Your task to perform on an android device: turn on translation in the chrome app Image 0: 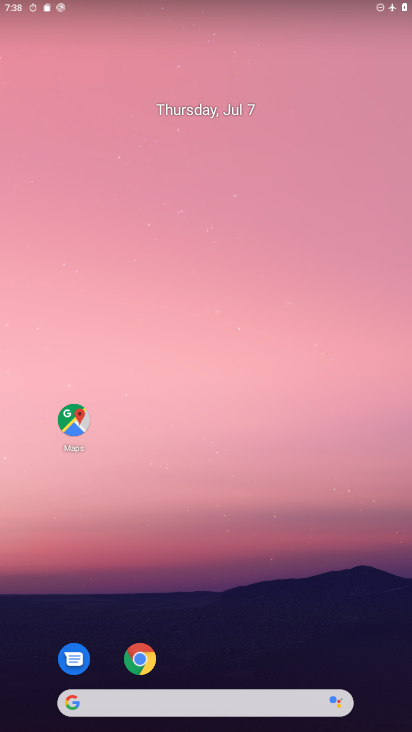
Step 0: drag from (361, 679) to (386, 538)
Your task to perform on an android device: turn on translation in the chrome app Image 1: 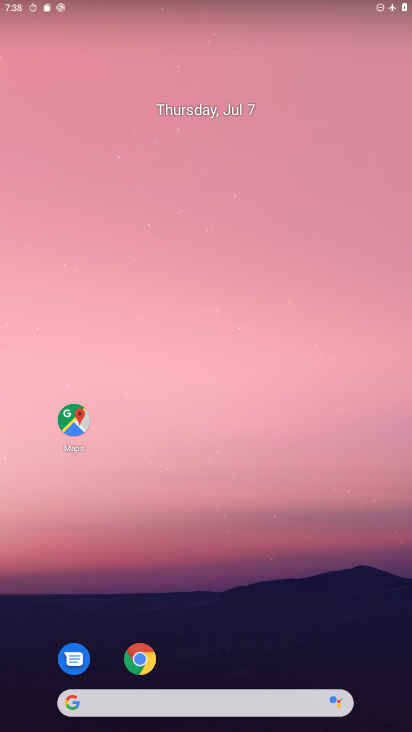
Step 1: drag from (352, 715) to (240, 0)
Your task to perform on an android device: turn on translation in the chrome app Image 2: 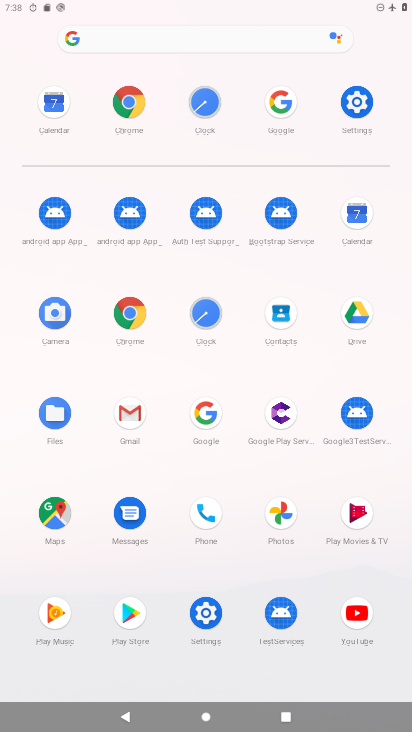
Step 2: click (117, 313)
Your task to perform on an android device: turn on translation in the chrome app Image 3: 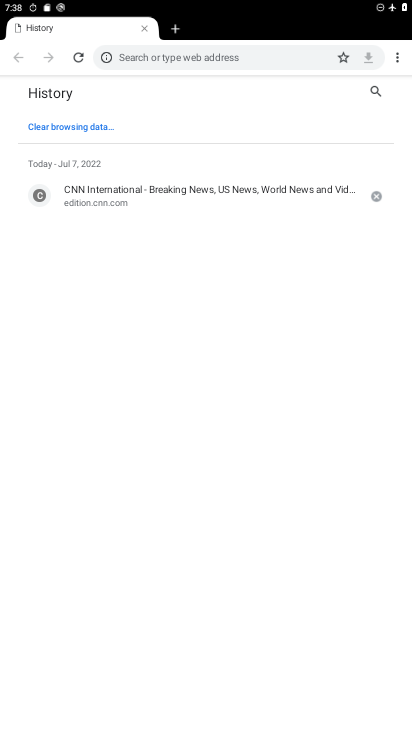
Step 3: click (390, 54)
Your task to perform on an android device: turn on translation in the chrome app Image 4: 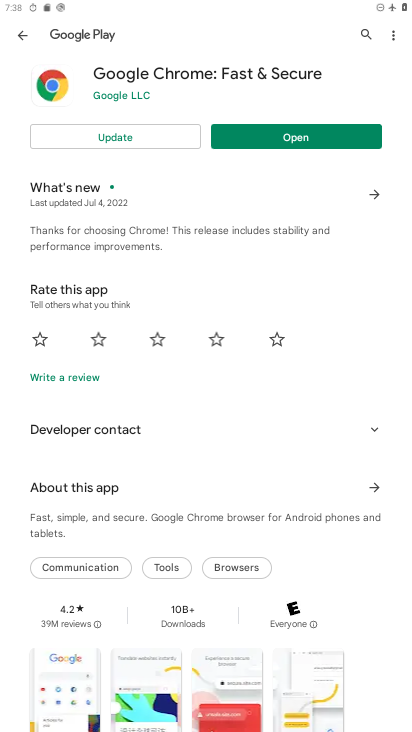
Step 4: press back button
Your task to perform on an android device: turn on translation in the chrome app Image 5: 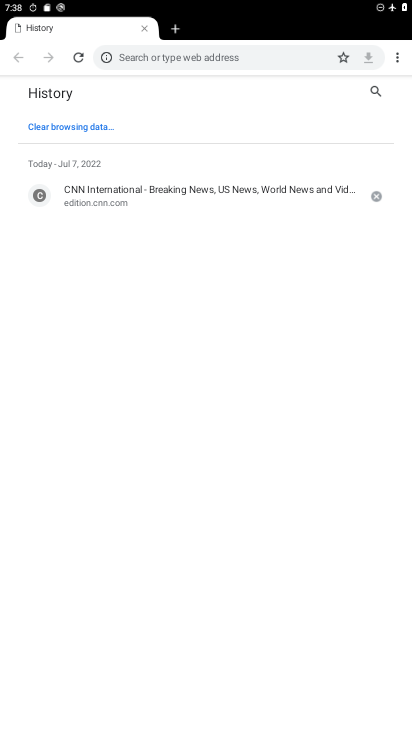
Step 5: click (396, 57)
Your task to perform on an android device: turn on translation in the chrome app Image 6: 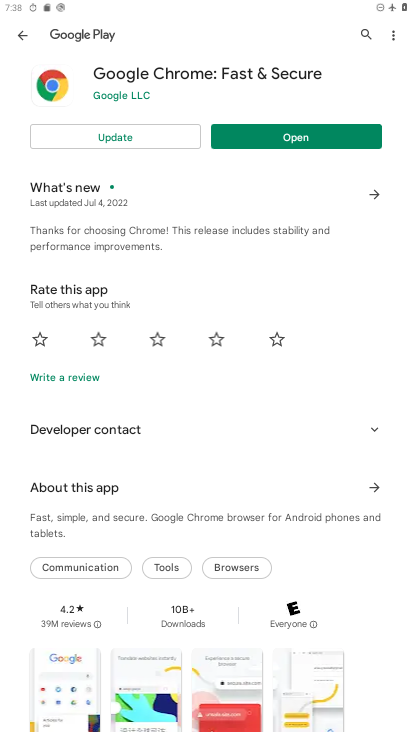
Step 6: click (121, 145)
Your task to perform on an android device: turn on translation in the chrome app Image 7: 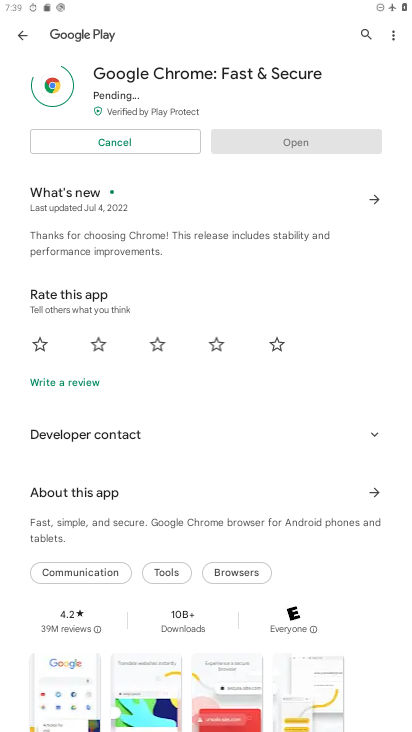
Step 7: task complete